Your task to perform on an android device: turn off picture-in-picture Image 0: 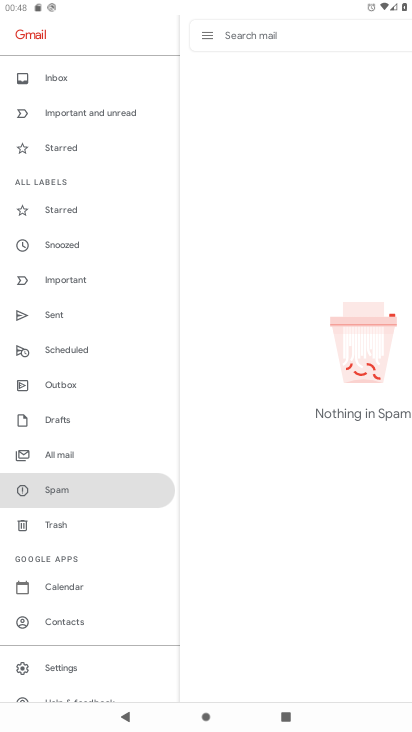
Step 0: press home button
Your task to perform on an android device: turn off picture-in-picture Image 1: 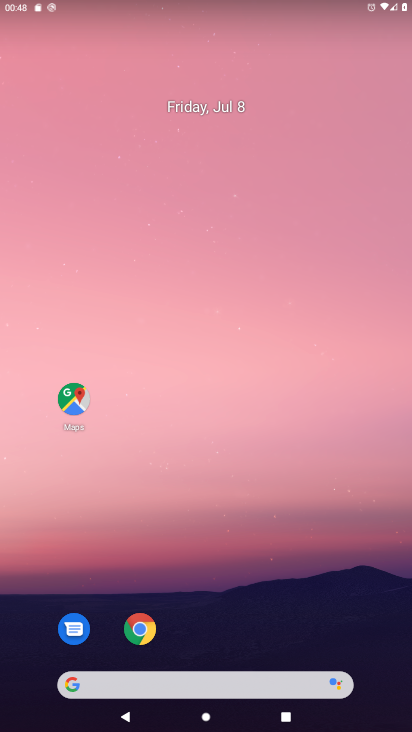
Step 1: click (133, 628)
Your task to perform on an android device: turn off picture-in-picture Image 2: 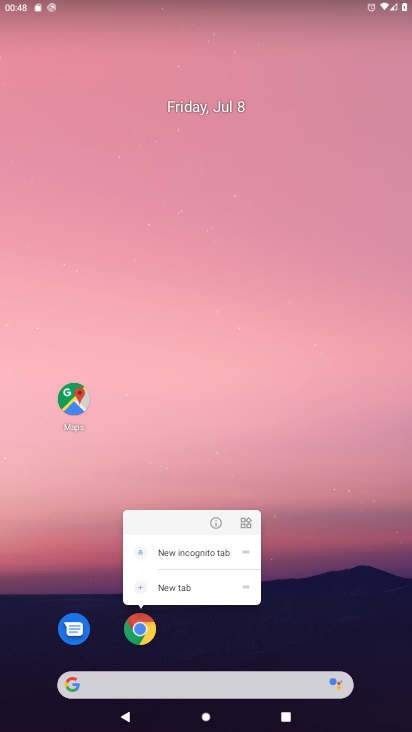
Step 2: click (214, 526)
Your task to perform on an android device: turn off picture-in-picture Image 3: 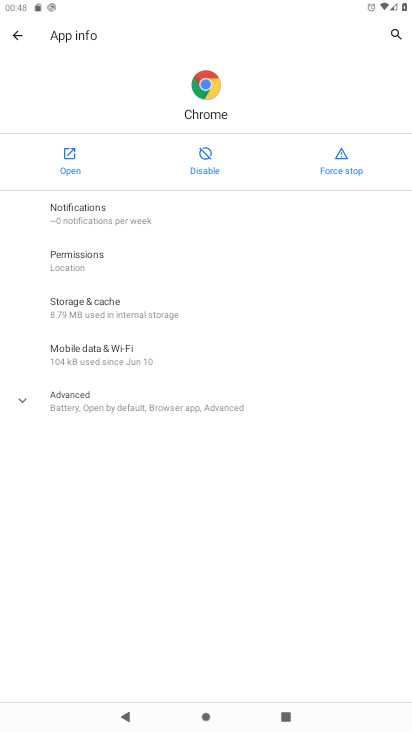
Step 3: click (104, 394)
Your task to perform on an android device: turn off picture-in-picture Image 4: 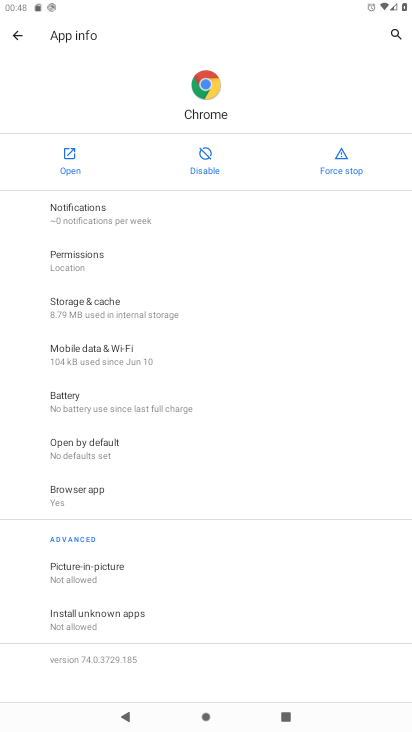
Step 4: click (58, 580)
Your task to perform on an android device: turn off picture-in-picture Image 5: 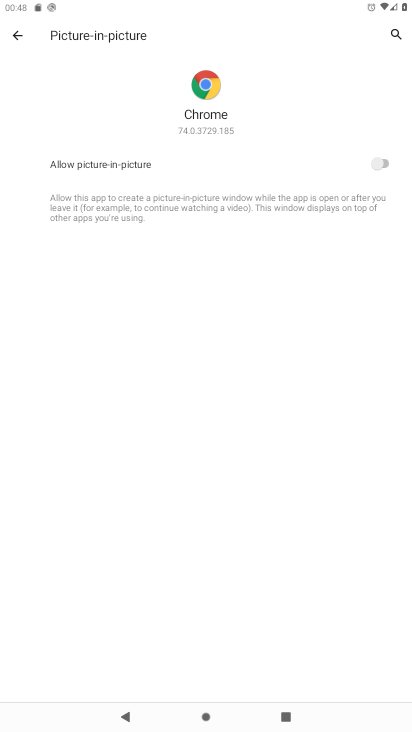
Step 5: task complete